Your task to perform on an android device: What is the recent news? Image 0: 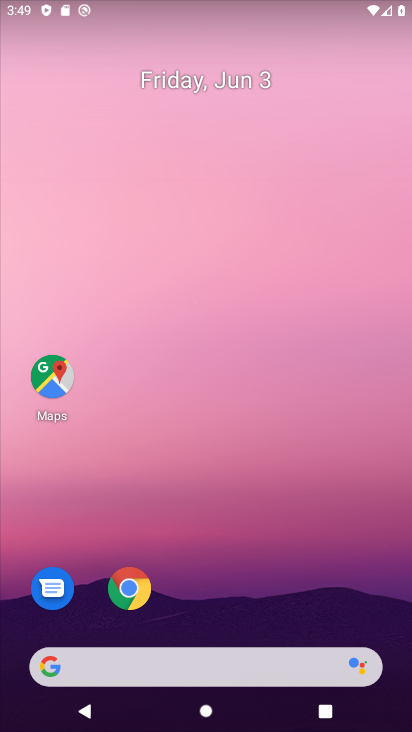
Step 0: click (234, 659)
Your task to perform on an android device: What is the recent news? Image 1: 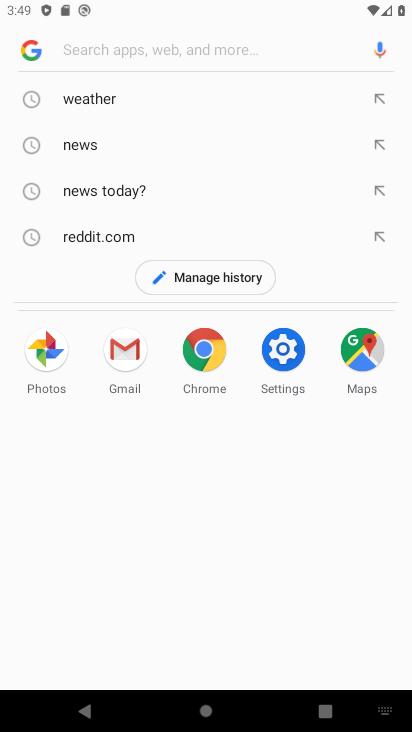
Step 1: click (182, 48)
Your task to perform on an android device: What is the recent news? Image 2: 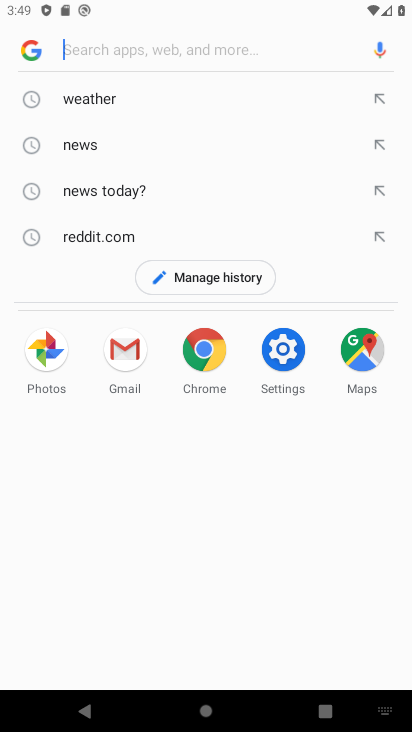
Step 2: type "recent news"
Your task to perform on an android device: What is the recent news? Image 3: 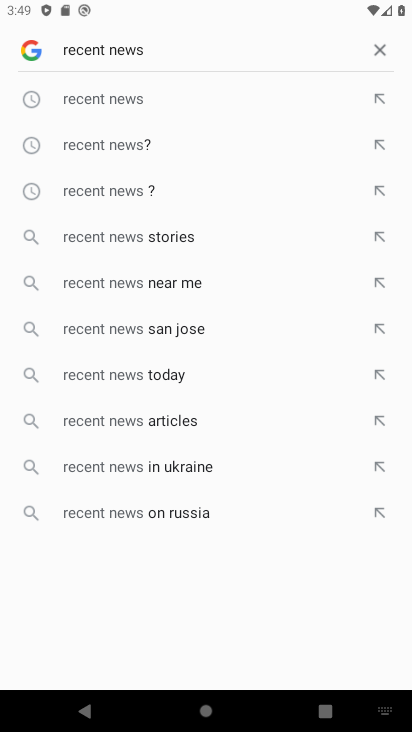
Step 3: click (131, 99)
Your task to perform on an android device: What is the recent news? Image 4: 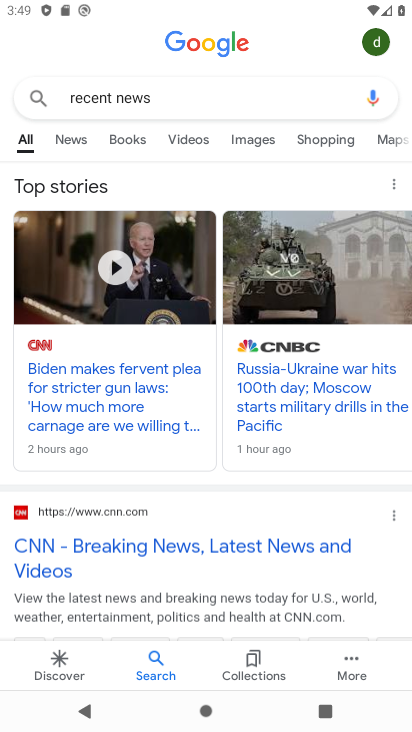
Step 4: task complete